Your task to perform on an android device: turn off location Image 0: 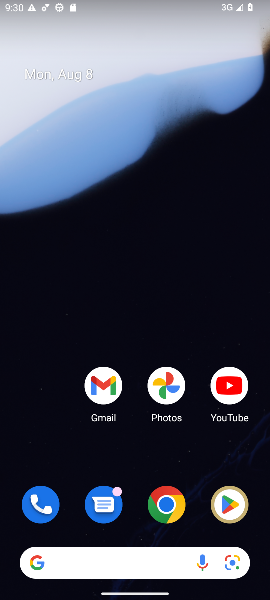
Step 0: drag from (122, 460) to (140, 230)
Your task to perform on an android device: turn off location Image 1: 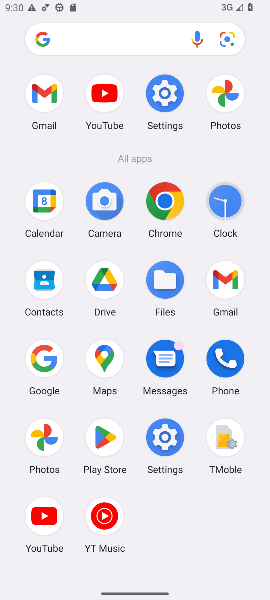
Step 1: click (172, 449)
Your task to perform on an android device: turn off location Image 2: 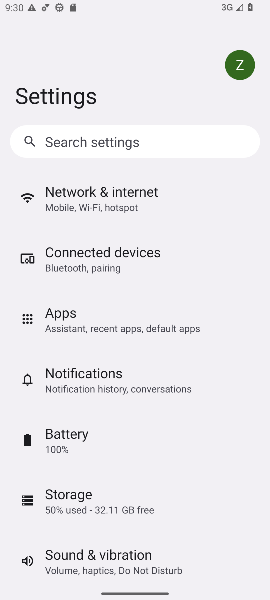
Step 2: click (159, 451)
Your task to perform on an android device: turn off location Image 3: 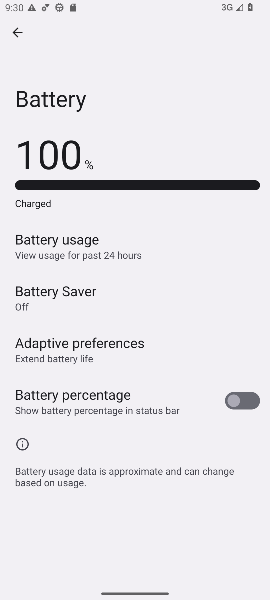
Step 3: click (16, 26)
Your task to perform on an android device: turn off location Image 4: 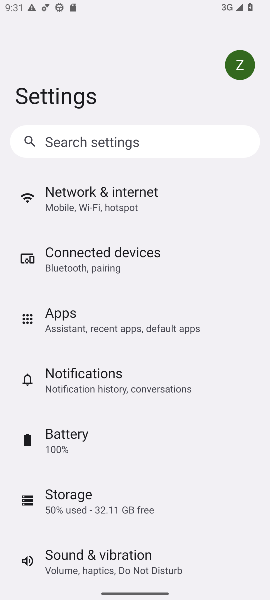
Step 4: drag from (115, 390) to (129, 318)
Your task to perform on an android device: turn off location Image 5: 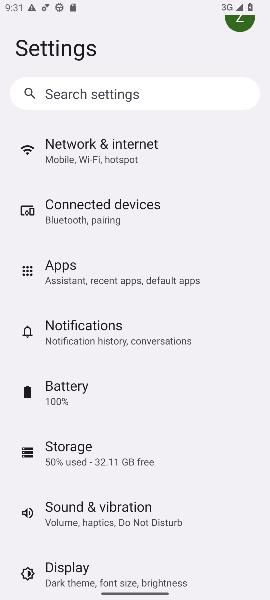
Step 5: drag from (130, 513) to (147, 369)
Your task to perform on an android device: turn off location Image 6: 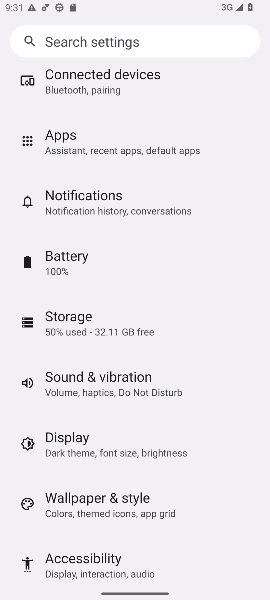
Step 6: drag from (101, 463) to (134, 323)
Your task to perform on an android device: turn off location Image 7: 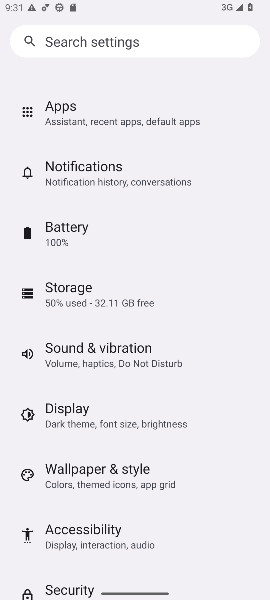
Step 7: click (139, 402)
Your task to perform on an android device: turn off location Image 8: 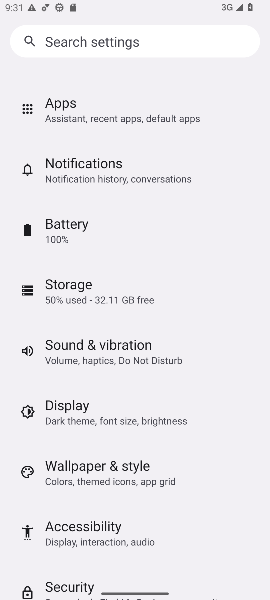
Step 8: drag from (107, 456) to (121, 328)
Your task to perform on an android device: turn off location Image 9: 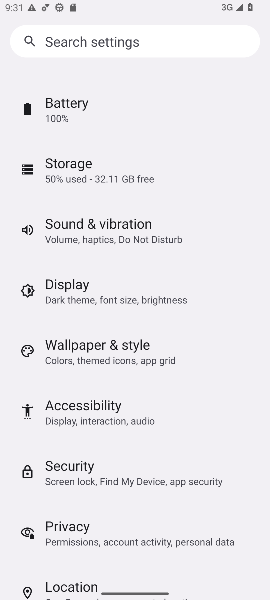
Step 9: click (66, 579)
Your task to perform on an android device: turn off location Image 10: 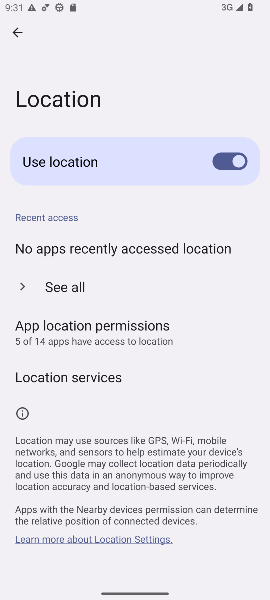
Step 10: click (207, 158)
Your task to perform on an android device: turn off location Image 11: 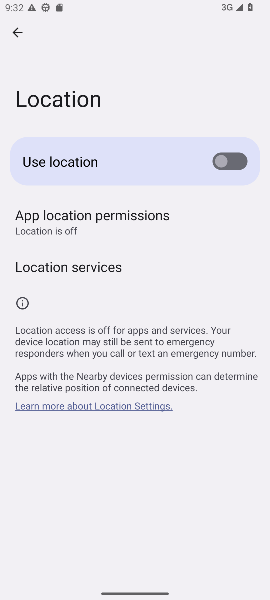
Step 11: task complete